Your task to perform on an android device: open the mobile data screen to see how much data has been used Image 0: 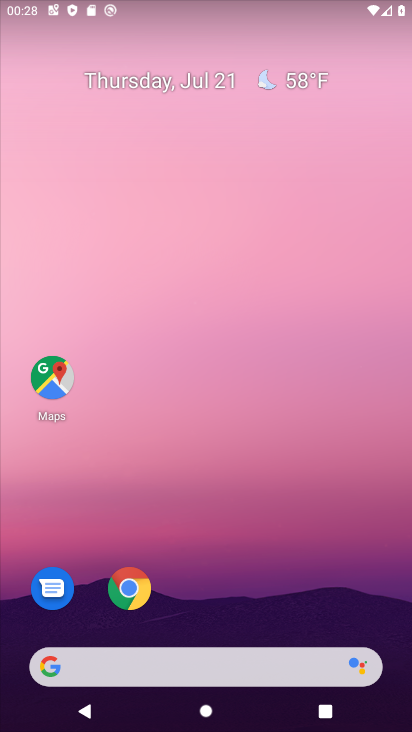
Step 0: drag from (194, 615) to (195, 72)
Your task to perform on an android device: open the mobile data screen to see how much data has been used Image 1: 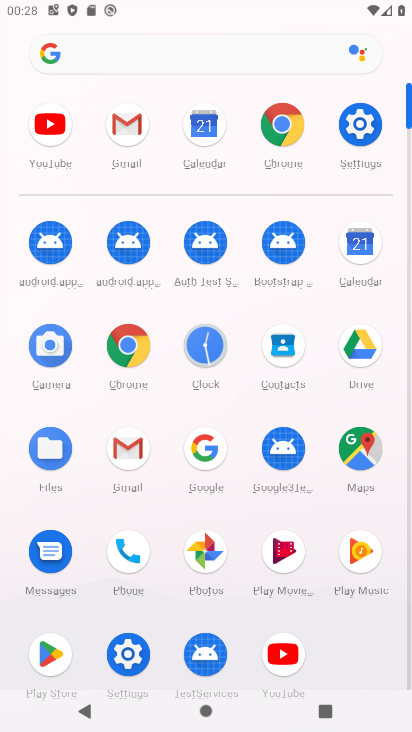
Step 1: click (367, 155)
Your task to perform on an android device: open the mobile data screen to see how much data has been used Image 2: 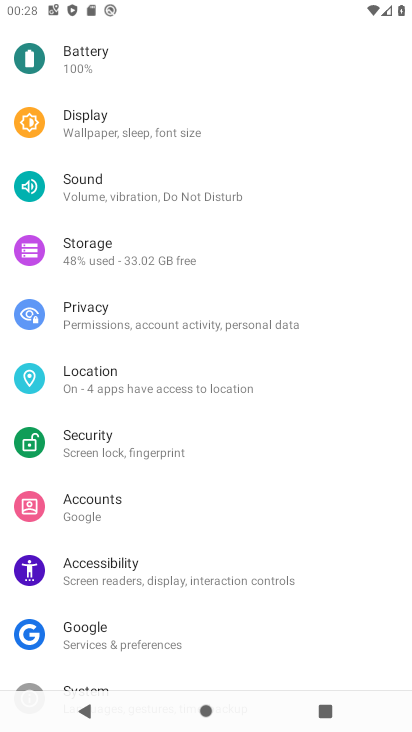
Step 2: drag from (145, 138) to (141, 425)
Your task to perform on an android device: open the mobile data screen to see how much data has been used Image 3: 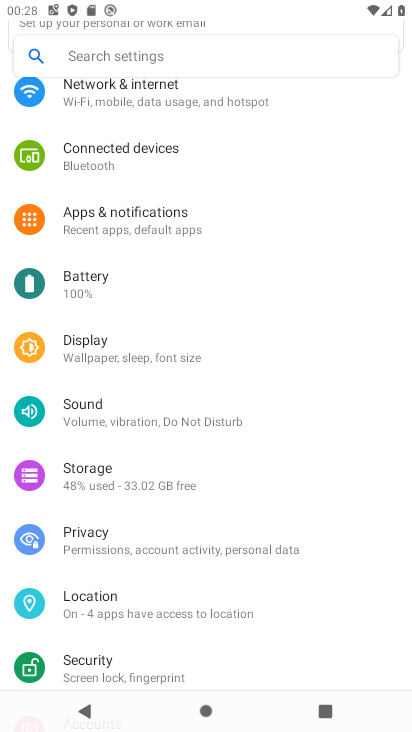
Step 3: drag from (133, 152) to (134, 448)
Your task to perform on an android device: open the mobile data screen to see how much data has been used Image 4: 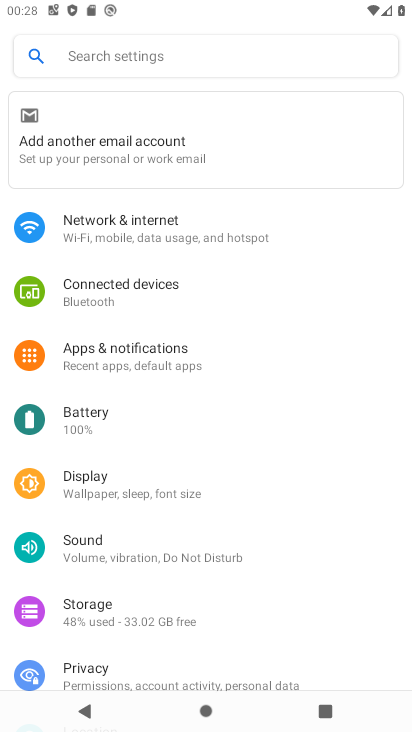
Step 4: click (132, 240)
Your task to perform on an android device: open the mobile data screen to see how much data has been used Image 5: 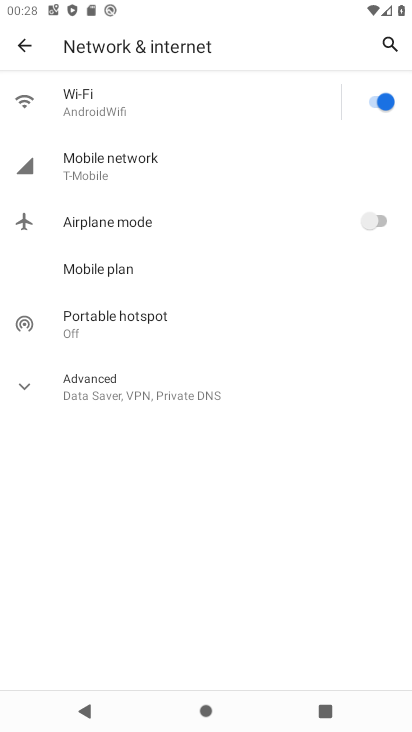
Step 5: click (137, 173)
Your task to perform on an android device: open the mobile data screen to see how much data has been used Image 6: 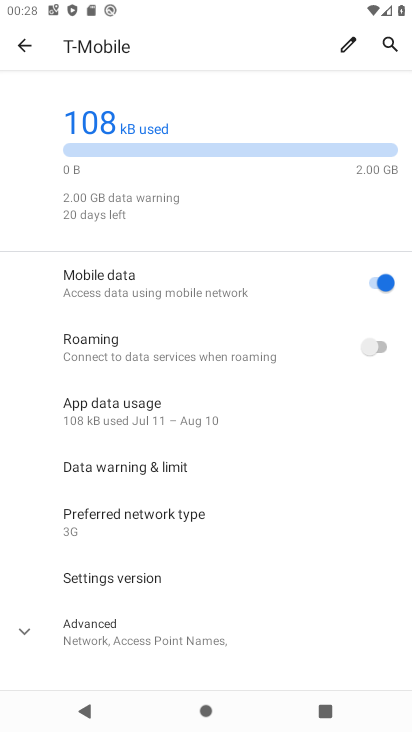
Step 6: task complete